Your task to perform on an android device: Search for flights from NYC to Tokyo Image 0: 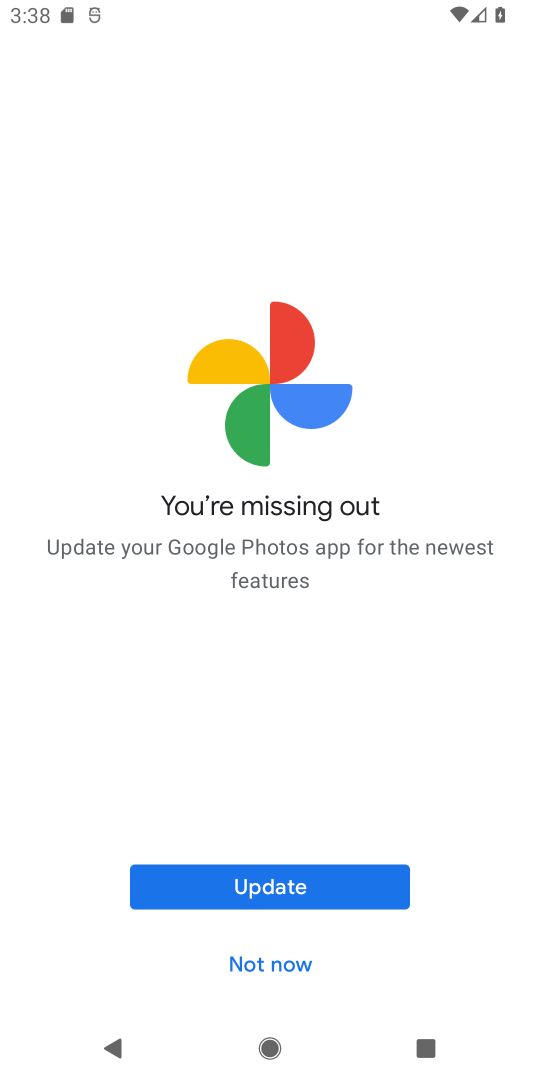
Step 0: press home button
Your task to perform on an android device: Search for flights from NYC to Tokyo Image 1: 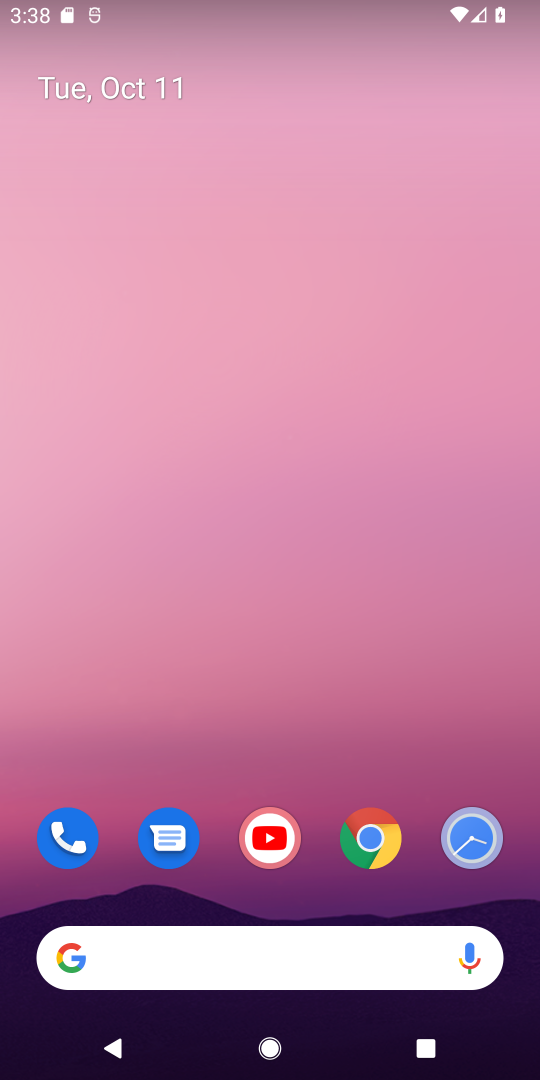
Step 1: click (276, 938)
Your task to perform on an android device: Search for flights from NYC to Tokyo Image 2: 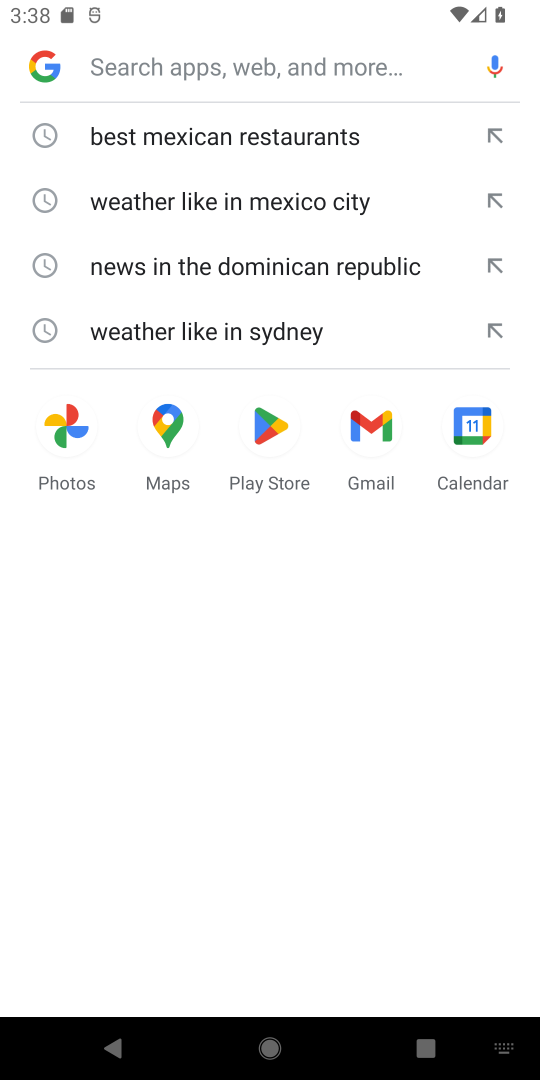
Step 2: type "flights from NYC to Tokyo"
Your task to perform on an android device: Search for flights from NYC to Tokyo Image 3: 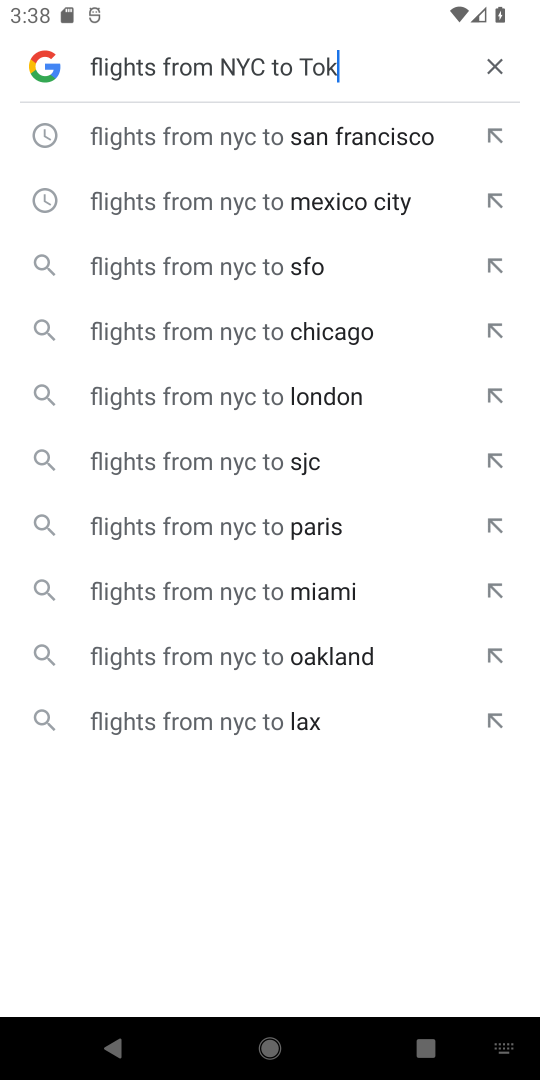
Step 3: type ""
Your task to perform on an android device: Search for flights from NYC to Tokyo Image 4: 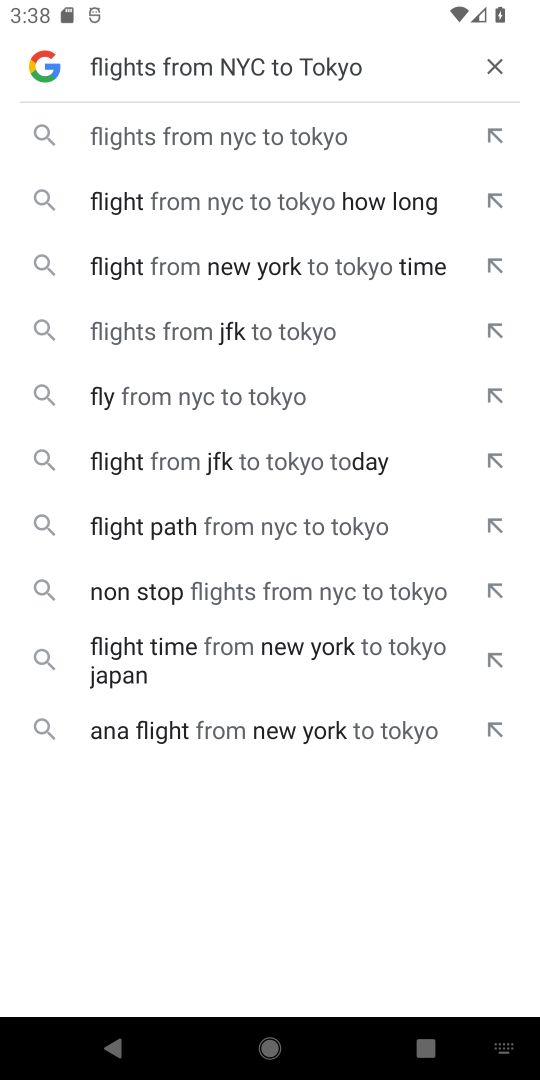
Step 4: click (319, 139)
Your task to perform on an android device: Search for flights from NYC to Tokyo Image 5: 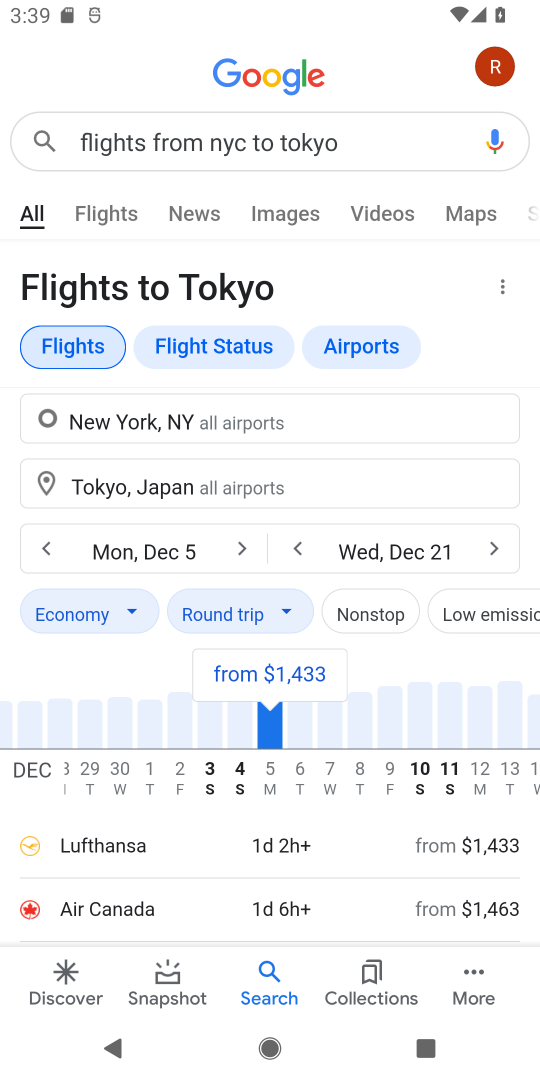
Step 5: task complete